Your task to perform on an android device: Open Chrome and go to settings Image 0: 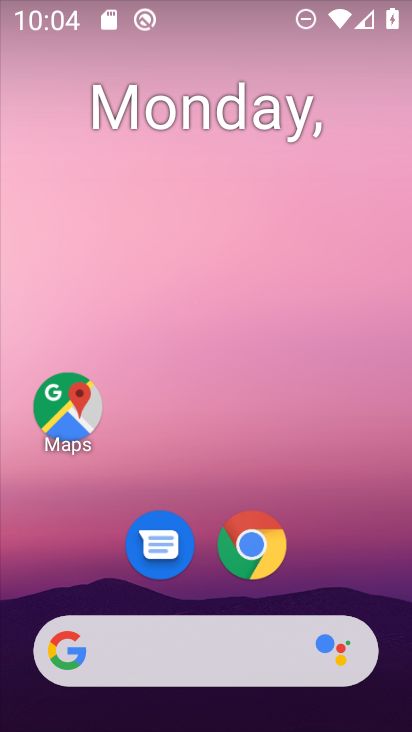
Step 0: click (244, 538)
Your task to perform on an android device: Open Chrome and go to settings Image 1: 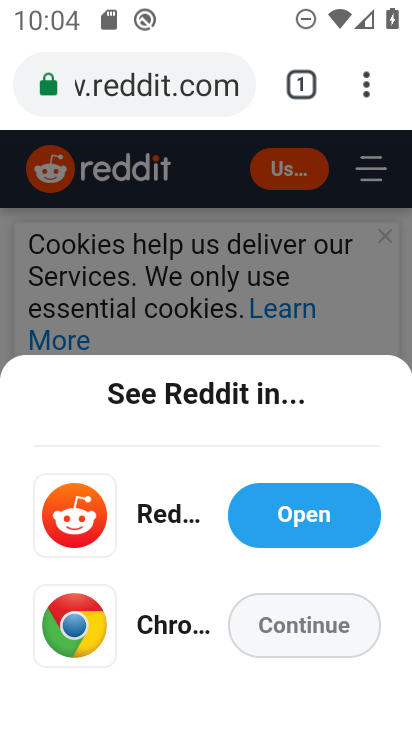
Step 1: click (360, 86)
Your task to perform on an android device: Open Chrome and go to settings Image 2: 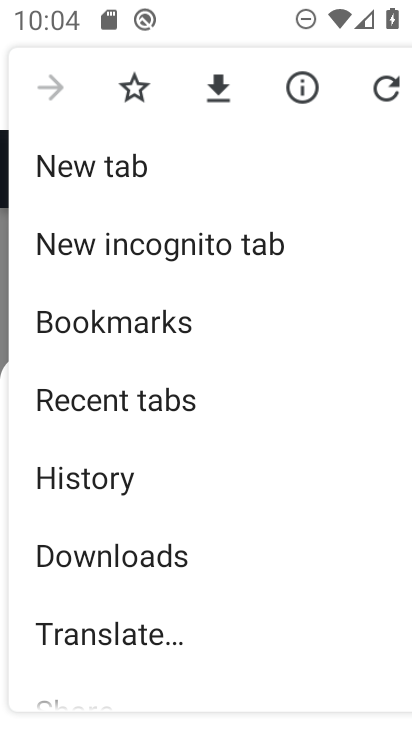
Step 2: drag from (69, 649) to (234, 244)
Your task to perform on an android device: Open Chrome and go to settings Image 3: 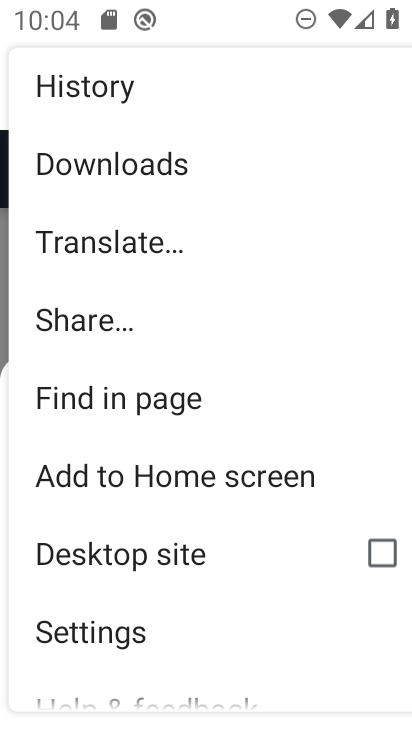
Step 3: click (106, 628)
Your task to perform on an android device: Open Chrome and go to settings Image 4: 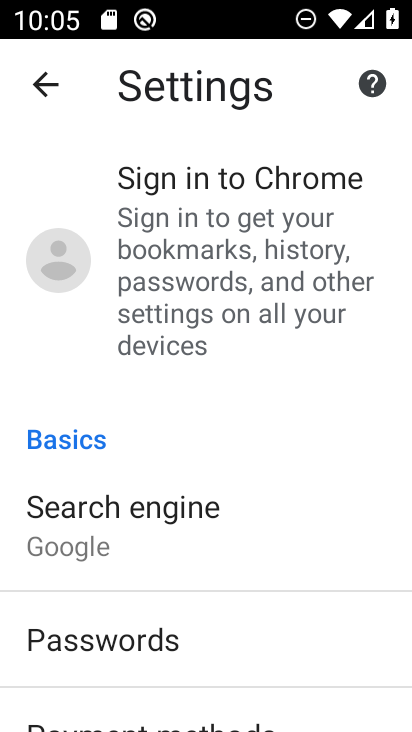
Step 4: task complete